Your task to perform on an android device: turn off translation in the chrome app Image 0: 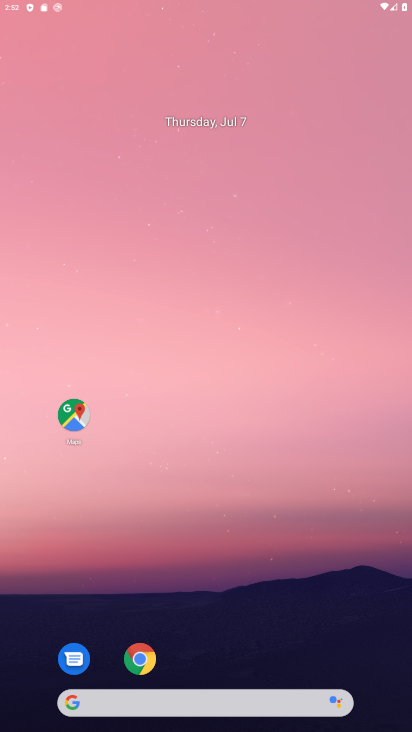
Step 0: click (74, 418)
Your task to perform on an android device: turn off translation in the chrome app Image 1: 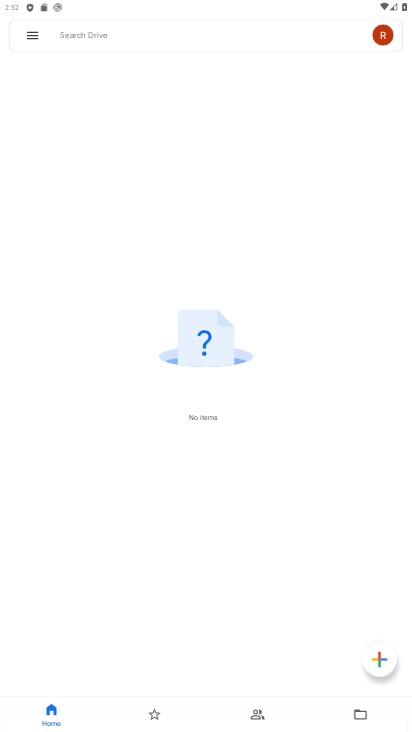
Step 1: press home button
Your task to perform on an android device: turn off translation in the chrome app Image 2: 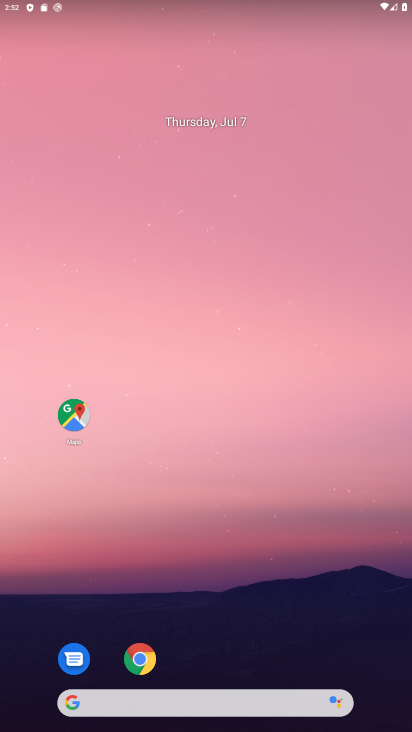
Step 2: click (142, 656)
Your task to perform on an android device: turn off translation in the chrome app Image 3: 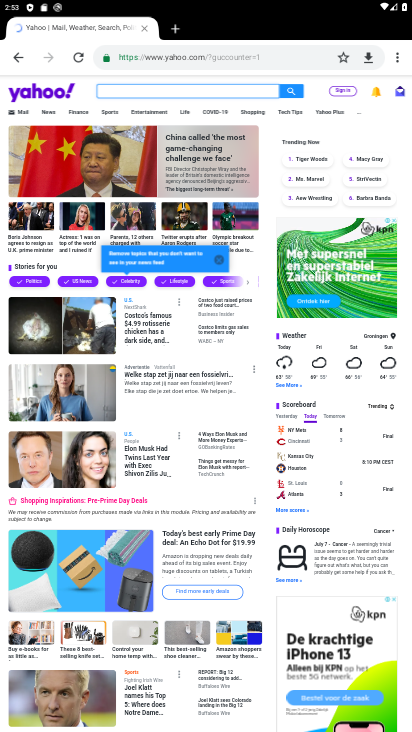
Step 3: click (398, 56)
Your task to perform on an android device: turn off translation in the chrome app Image 4: 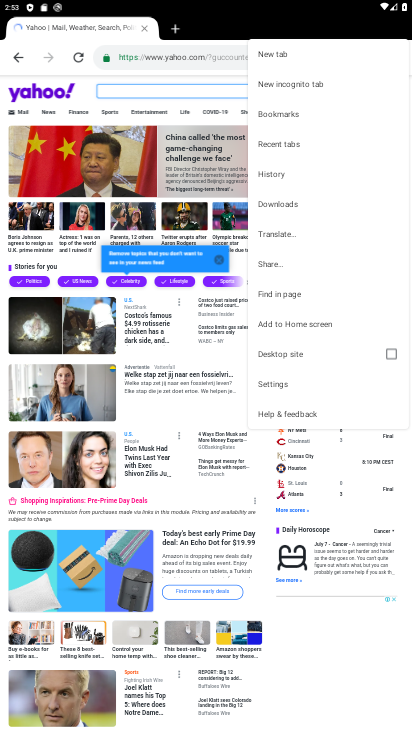
Step 4: click (294, 386)
Your task to perform on an android device: turn off translation in the chrome app Image 5: 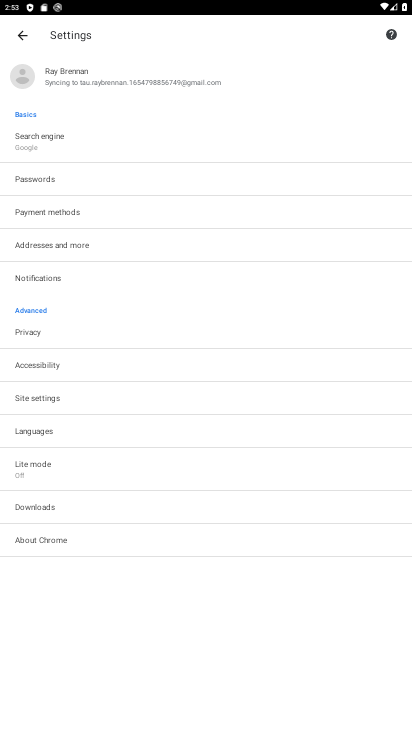
Step 5: click (52, 436)
Your task to perform on an android device: turn off translation in the chrome app Image 6: 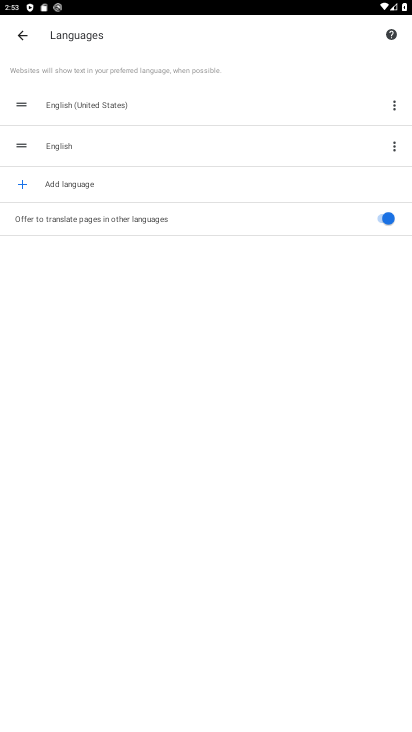
Step 6: click (384, 227)
Your task to perform on an android device: turn off translation in the chrome app Image 7: 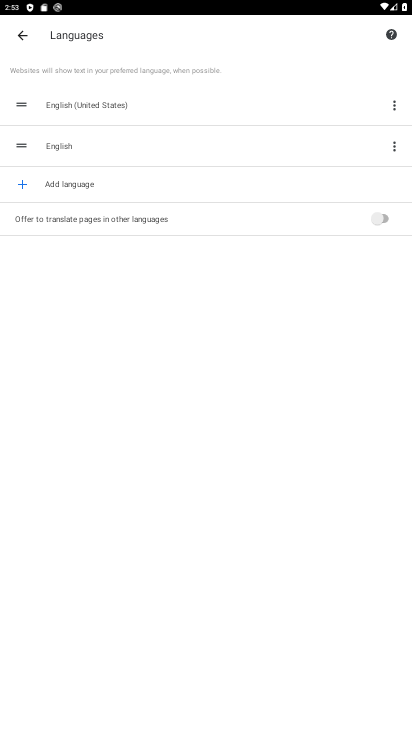
Step 7: task complete